Your task to perform on an android device: Go to network settings Image 0: 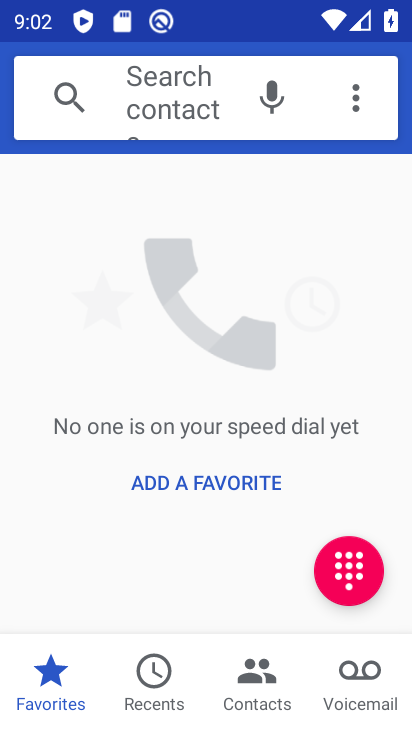
Step 0: press home button
Your task to perform on an android device: Go to network settings Image 1: 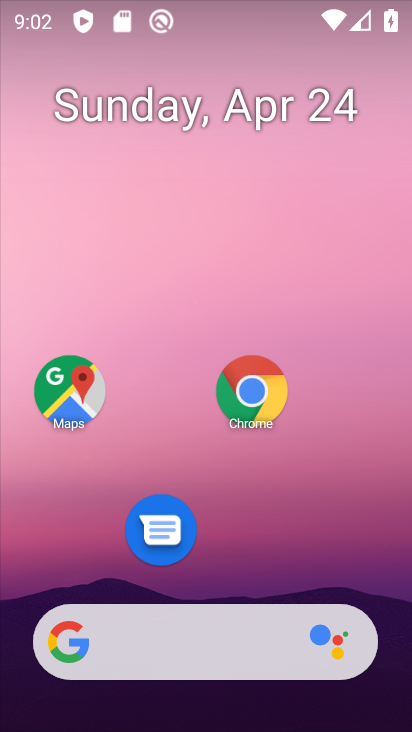
Step 1: drag from (209, 590) to (250, 110)
Your task to perform on an android device: Go to network settings Image 2: 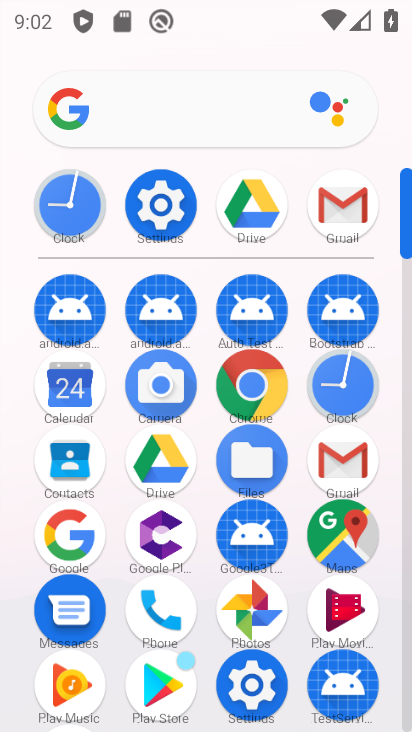
Step 2: click (147, 211)
Your task to perform on an android device: Go to network settings Image 3: 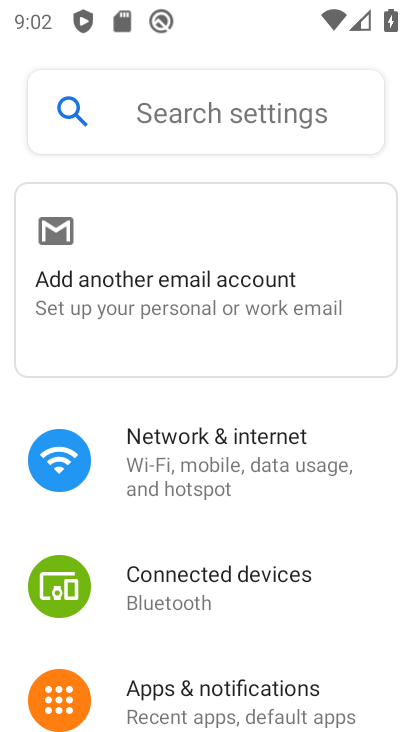
Step 3: click (204, 479)
Your task to perform on an android device: Go to network settings Image 4: 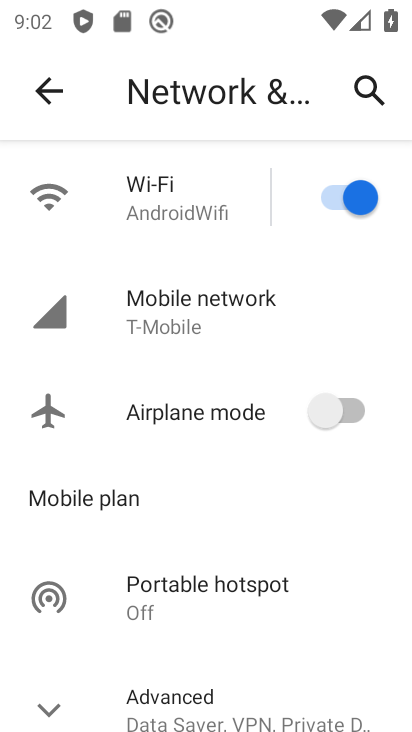
Step 4: task complete